Your task to perform on an android device: change the clock display to analog Image 0: 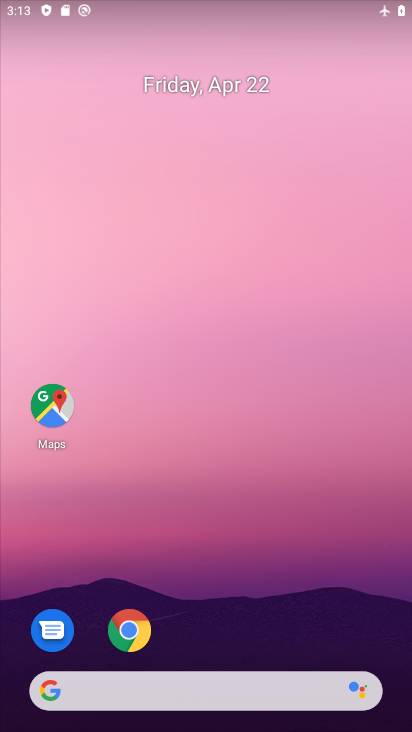
Step 0: drag from (189, 637) to (267, 241)
Your task to perform on an android device: change the clock display to analog Image 1: 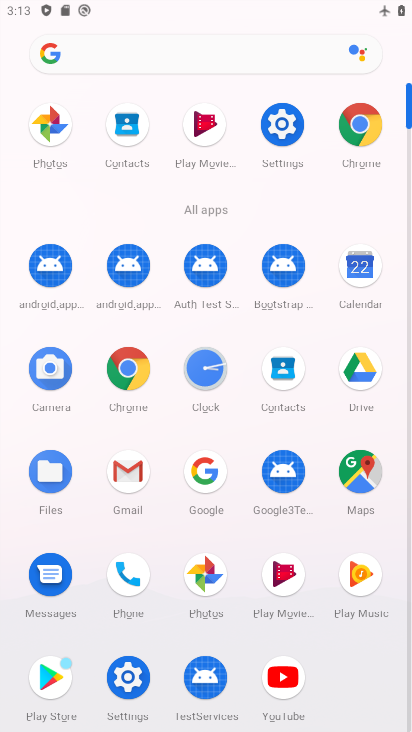
Step 1: click (202, 380)
Your task to perform on an android device: change the clock display to analog Image 2: 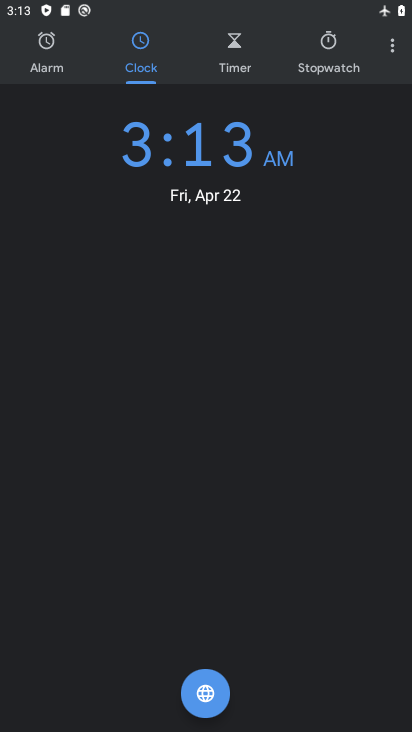
Step 2: click (391, 54)
Your task to perform on an android device: change the clock display to analog Image 3: 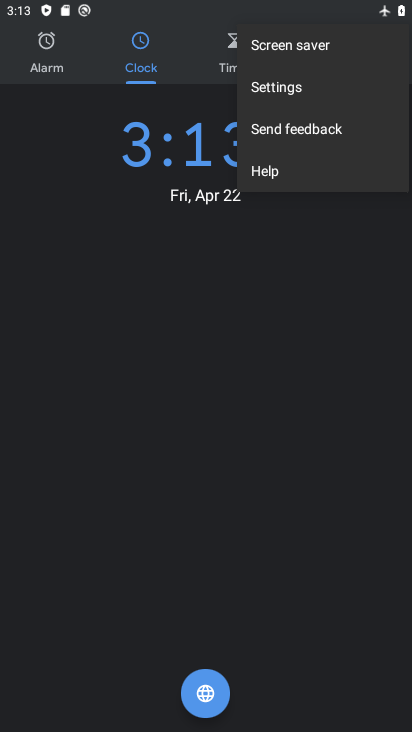
Step 3: click (285, 93)
Your task to perform on an android device: change the clock display to analog Image 4: 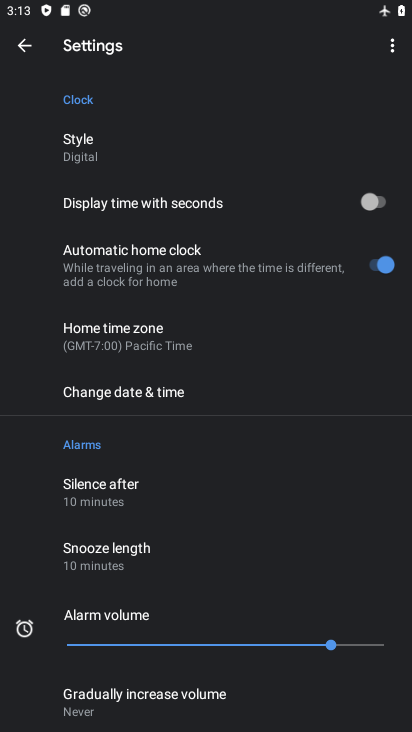
Step 4: click (107, 158)
Your task to perform on an android device: change the clock display to analog Image 5: 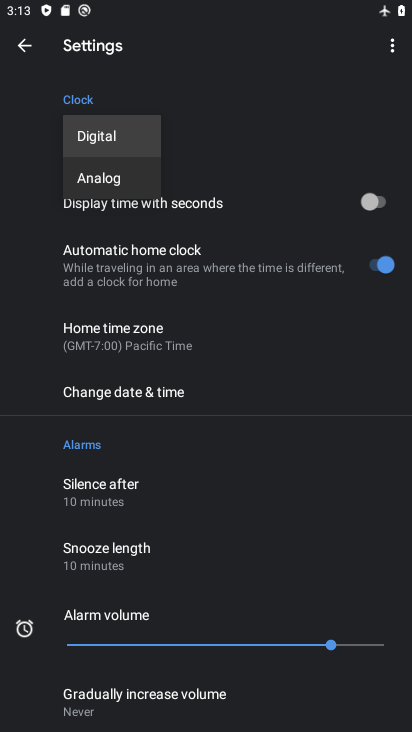
Step 5: click (110, 177)
Your task to perform on an android device: change the clock display to analog Image 6: 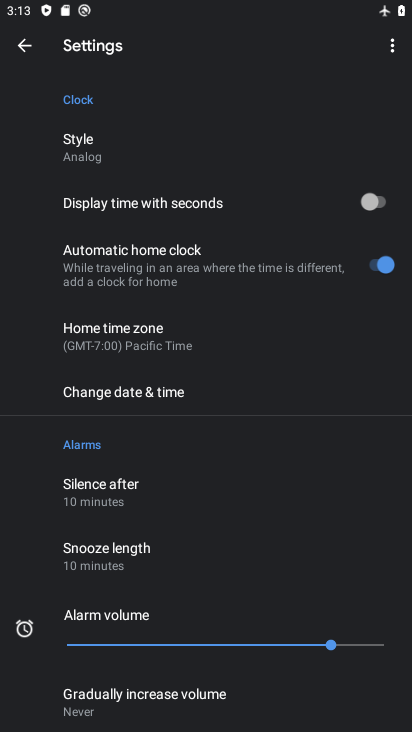
Step 6: task complete